Your task to perform on an android device: turn off smart reply in the gmail app Image 0: 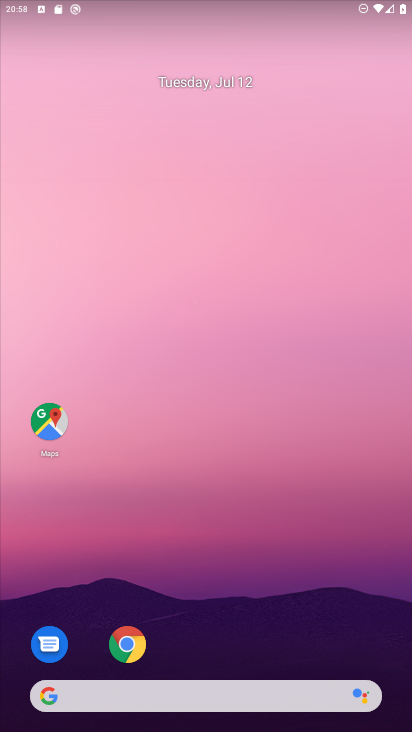
Step 0: drag from (391, 679) to (322, 293)
Your task to perform on an android device: turn off smart reply in the gmail app Image 1: 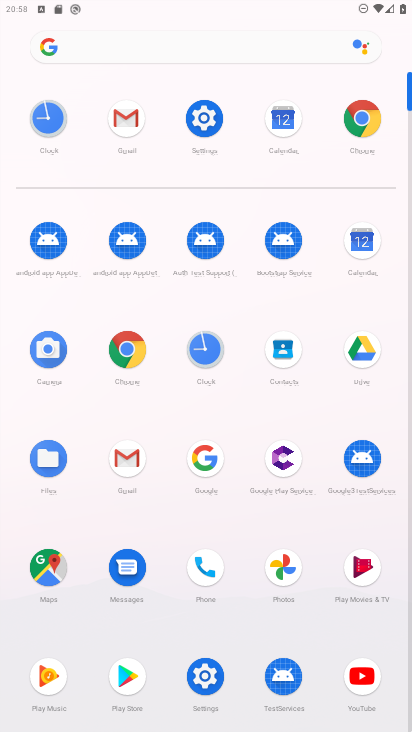
Step 1: click (125, 458)
Your task to perform on an android device: turn off smart reply in the gmail app Image 2: 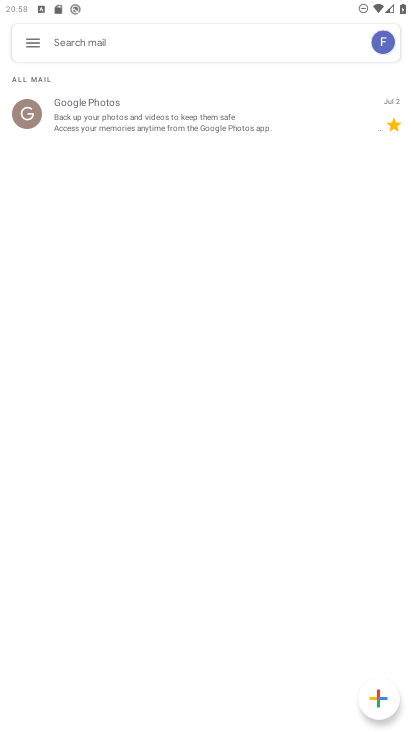
Step 2: click (31, 41)
Your task to perform on an android device: turn off smart reply in the gmail app Image 3: 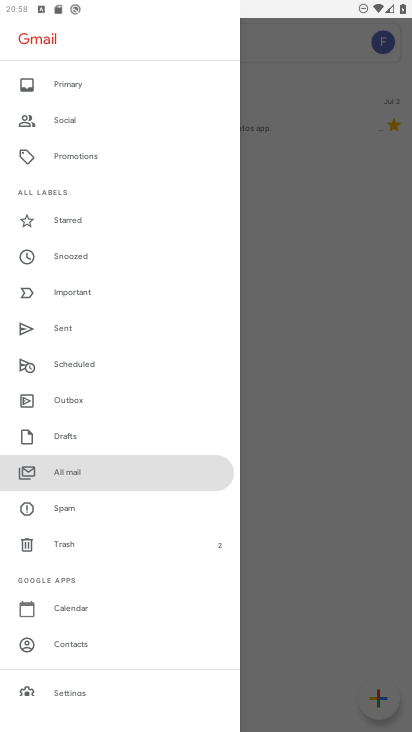
Step 3: drag from (67, 691) to (84, 545)
Your task to perform on an android device: turn off smart reply in the gmail app Image 4: 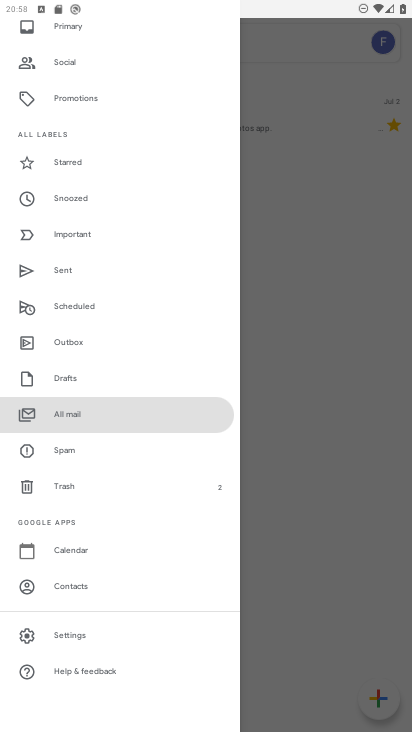
Step 4: click (61, 640)
Your task to perform on an android device: turn off smart reply in the gmail app Image 5: 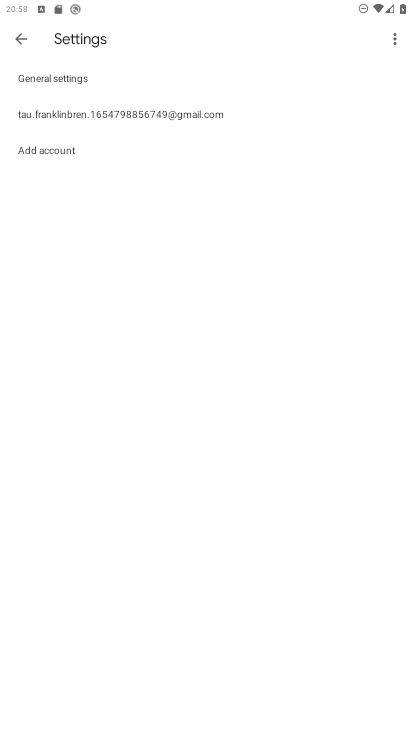
Step 5: click (107, 107)
Your task to perform on an android device: turn off smart reply in the gmail app Image 6: 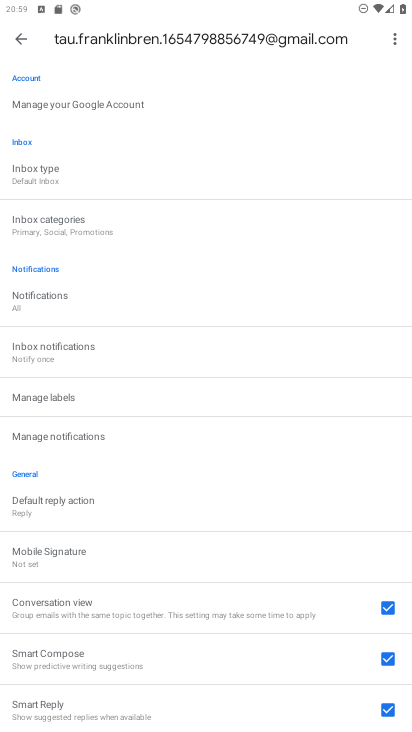
Step 6: drag from (198, 637) to (207, 385)
Your task to perform on an android device: turn off smart reply in the gmail app Image 7: 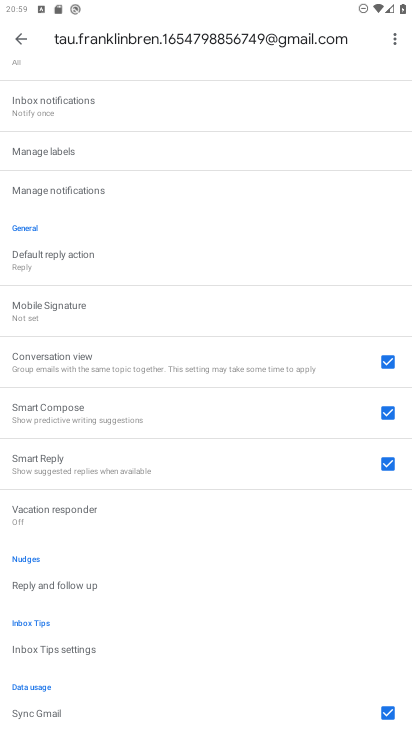
Step 7: click (389, 460)
Your task to perform on an android device: turn off smart reply in the gmail app Image 8: 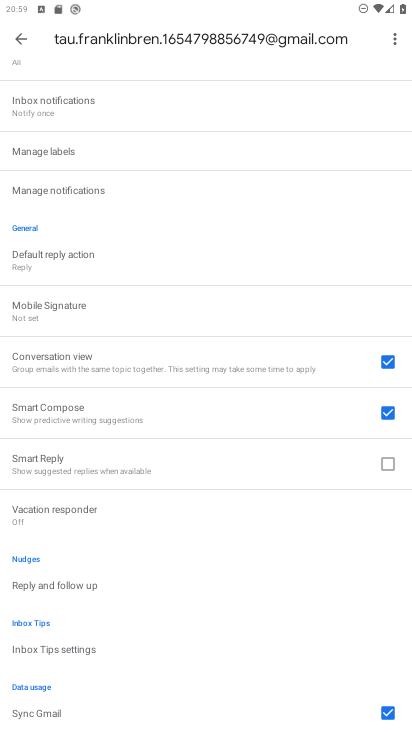
Step 8: task complete